Your task to perform on an android device: turn pop-ups on in chrome Image 0: 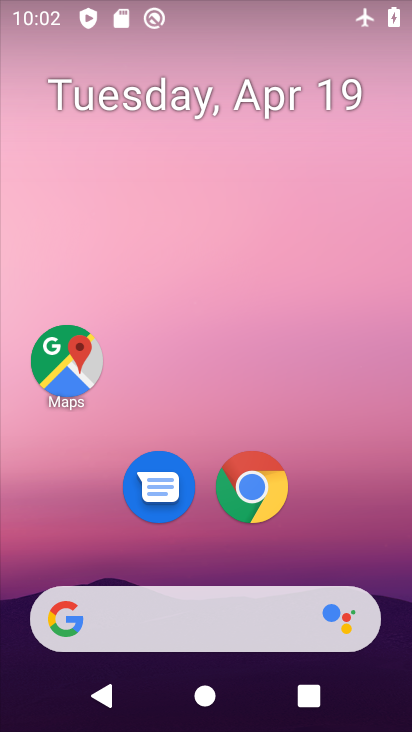
Step 0: click (250, 487)
Your task to perform on an android device: turn pop-ups on in chrome Image 1: 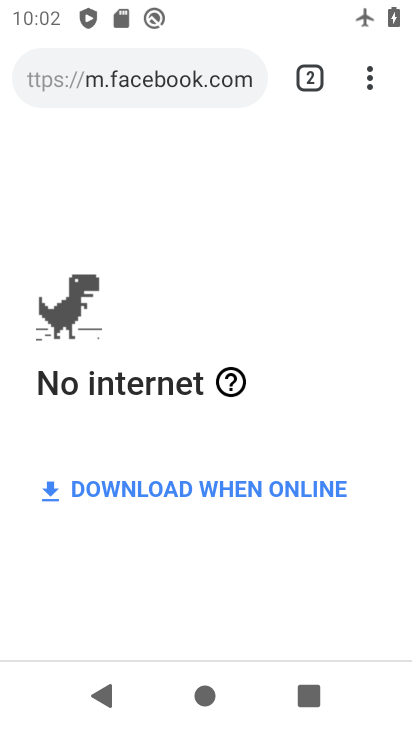
Step 1: click (362, 66)
Your task to perform on an android device: turn pop-ups on in chrome Image 2: 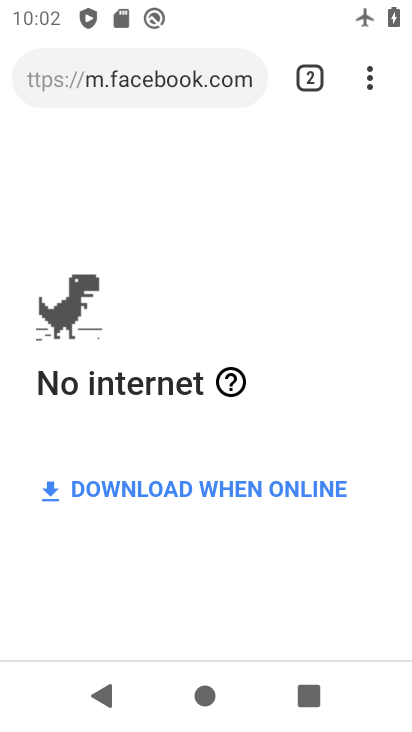
Step 2: click (376, 59)
Your task to perform on an android device: turn pop-ups on in chrome Image 3: 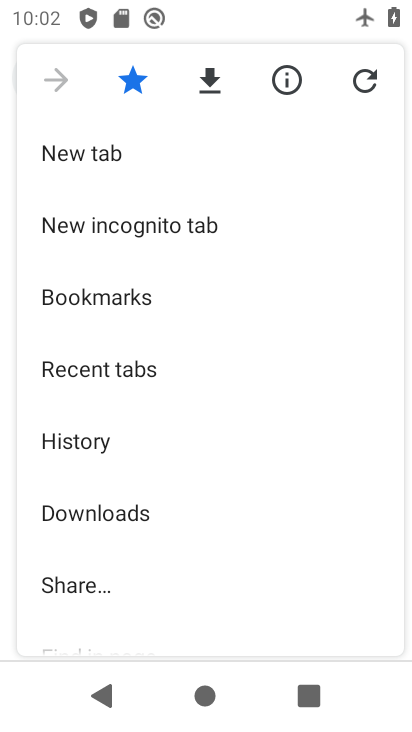
Step 3: drag from (166, 546) to (187, 328)
Your task to perform on an android device: turn pop-ups on in chrome Image 4: 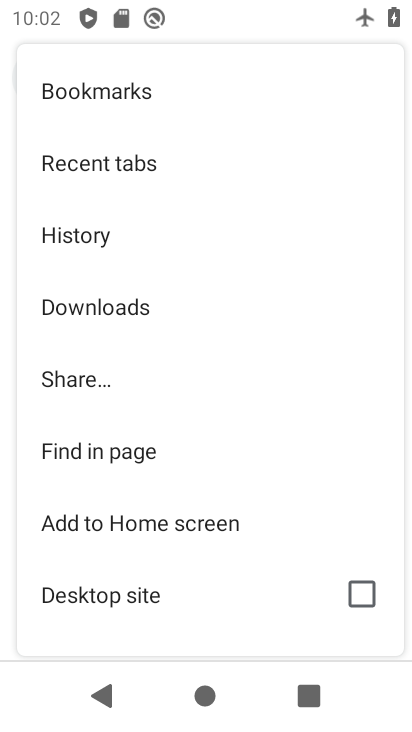
Step 4: drag from (182, 488) to (172, 360)
Your task to perform on an android device: turn pop-ups on in chrome Image 5: 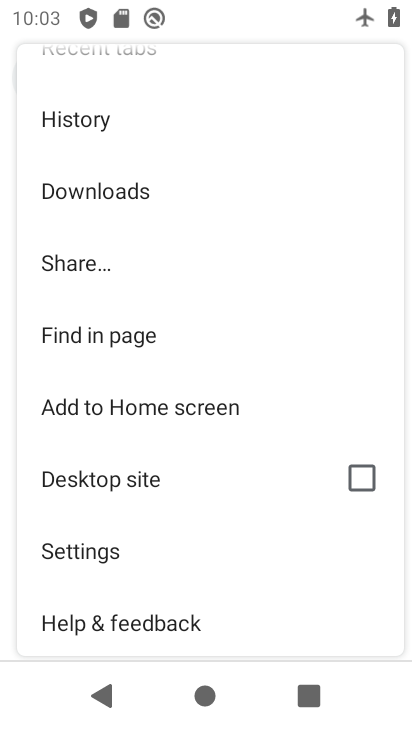
Step 5: click (45, 565)
Your task to perform on an android device: turn pop-ups on in chrome Image 6: 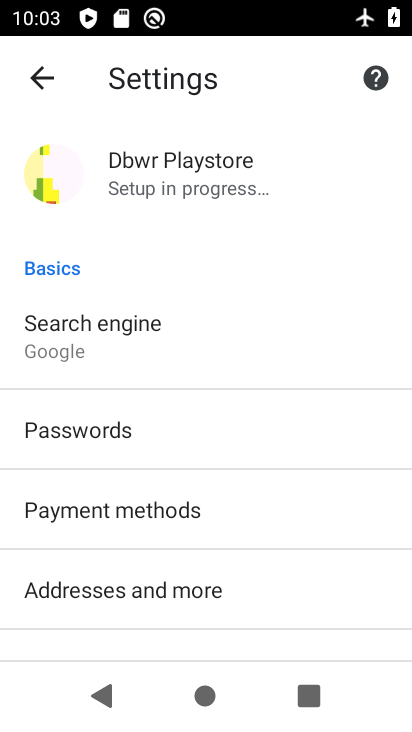
Step 6: drag from (123, 470) to (167, 365)
Your task to perform on an android device: turn pop-ups on in chrome Image 7: 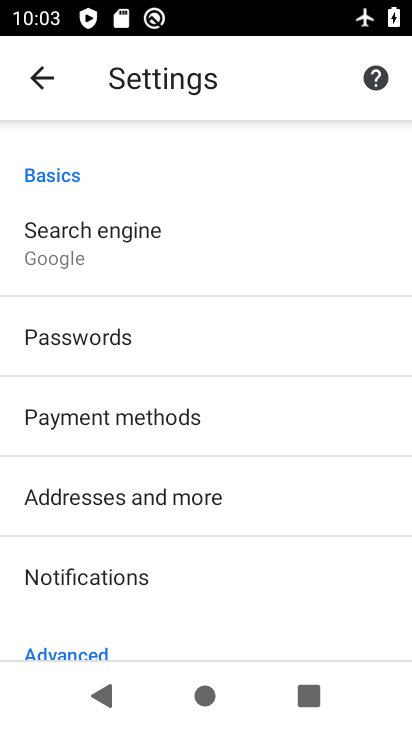
Step 7: drag from (173, 527) to (184, 443)
Your task to perform on an android device: turn pop-ups on in chrome Image 8: 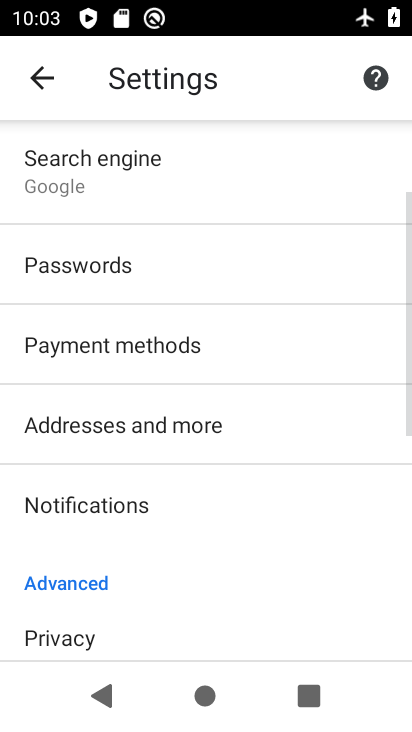
Step 8: drag from (196, 593) to (223, 457)
Your task to perform on an android device: turn pop-ups on in chrome Image 9: 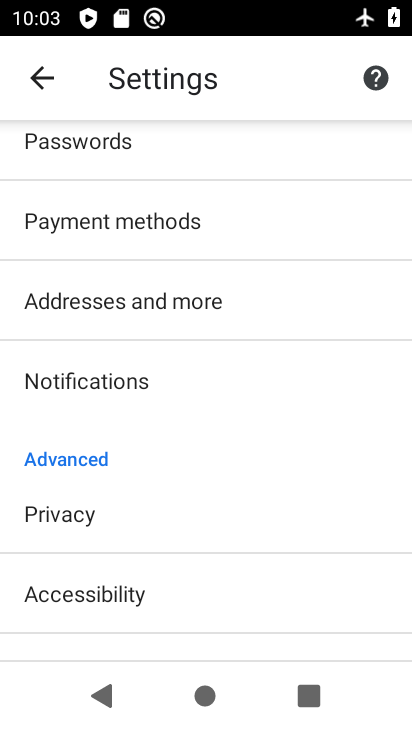
Step 9: drag from (190, 602) to (202, 493)
Your task to perform on an android device: turn pop-ups on in chrome Image 10: 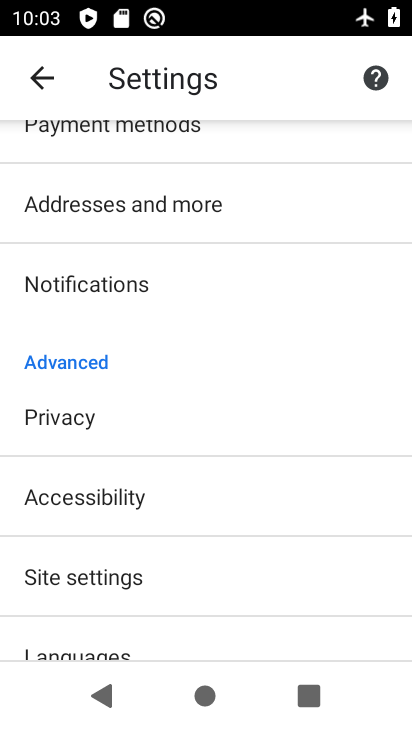
Step 10: click (181, 586)
Your task to perform on an android device: turn pop-ups on in chrome Image 11: 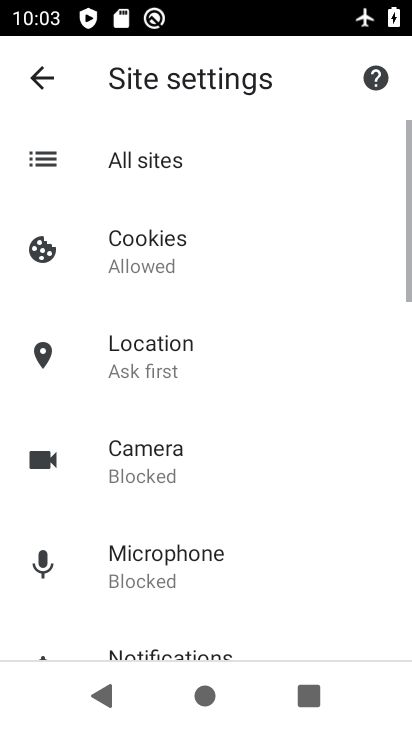
Step 11: drag from (189, 622) to (208, 502)
Your task to perform on an android device: turn pop-ups on in chrome Image 12: 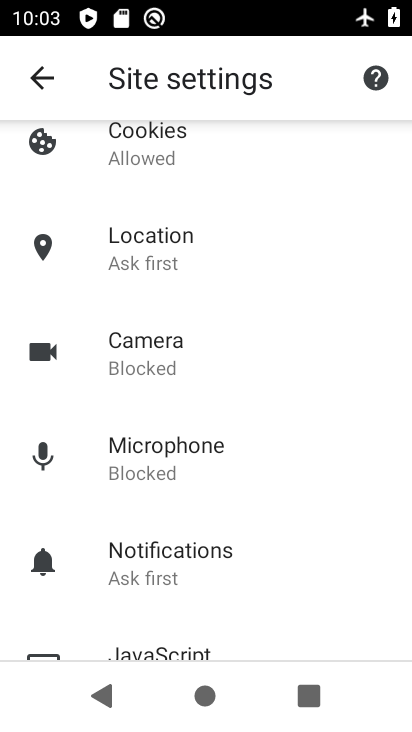
Step 12: drag from (208, 603) to (238, 511)
Your task to perform on an android device: turn pop-ups on in chrome Image 13: 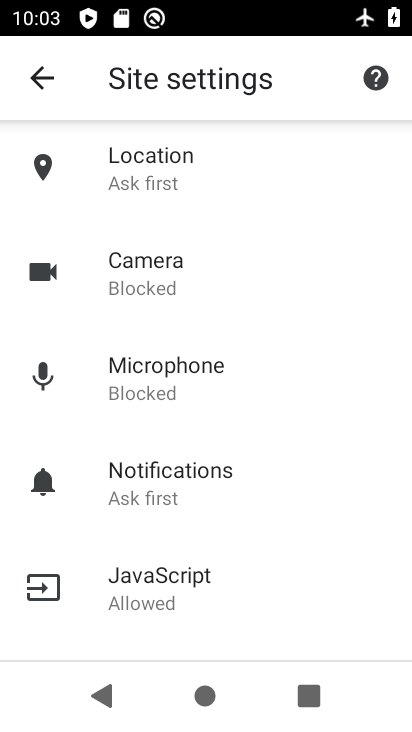
Step 13: drag from (269, 570) to (319, 458)
Your task to perform on an android device: turn pop-ups on in chrome Image 14: 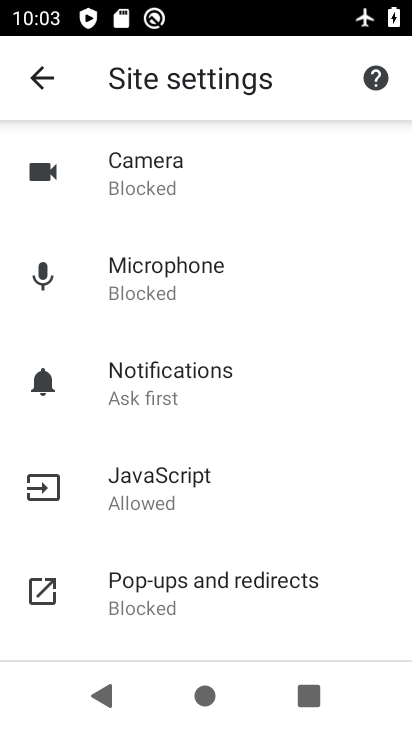
Step 14: click (240, 588)
Your task to perform on an android device: turn pop-ups on in chrome Image 15: 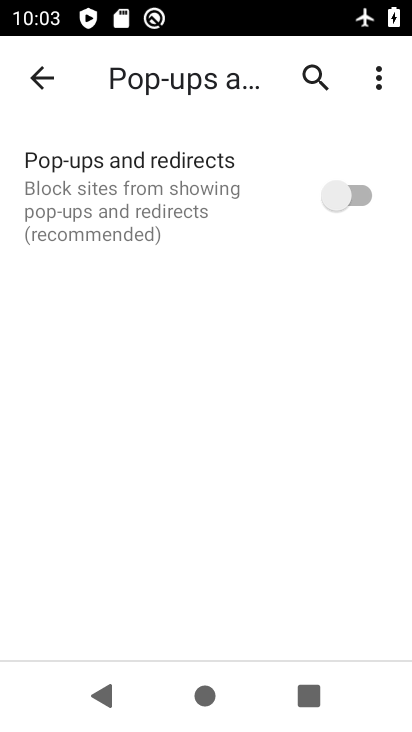
Step 15: click (364, 195)
Your task to perform on an android device: turn pop-ups on in chrome Image 16: 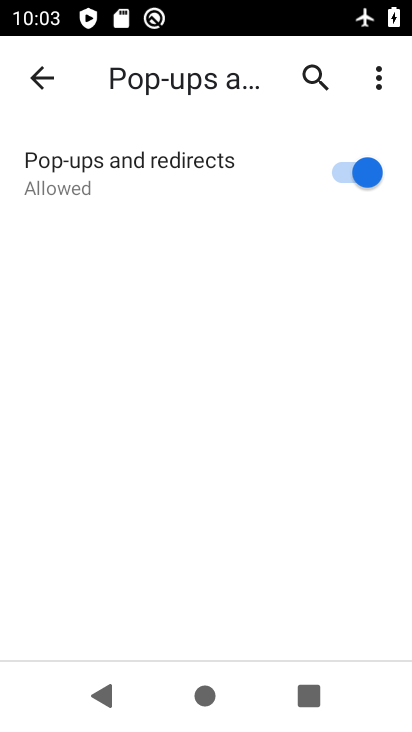
Step 16: task complete